Your task to perform on an android device: Check the news Image 0: 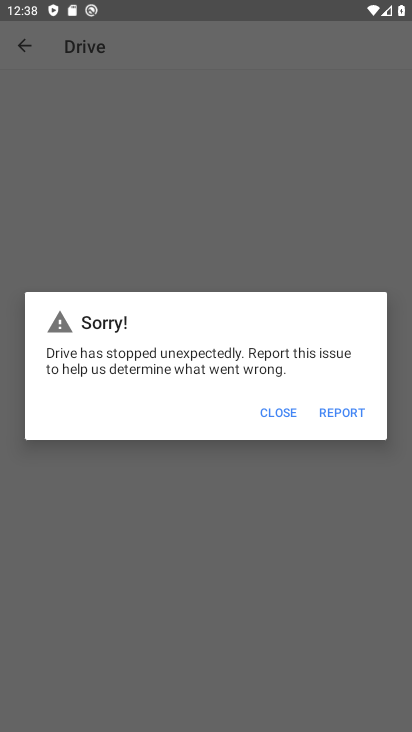
Step 0: press home button
Your task to perform on an android device: Check the news Image 1: 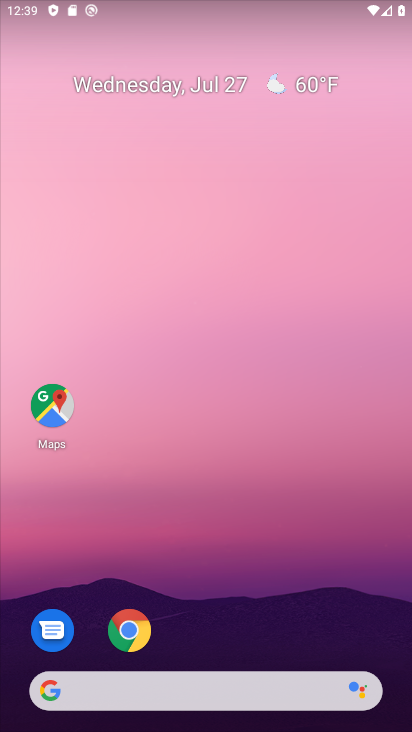
Step 1: click (52, 687)
Your task to perform on an android device: Check the news Image 2: 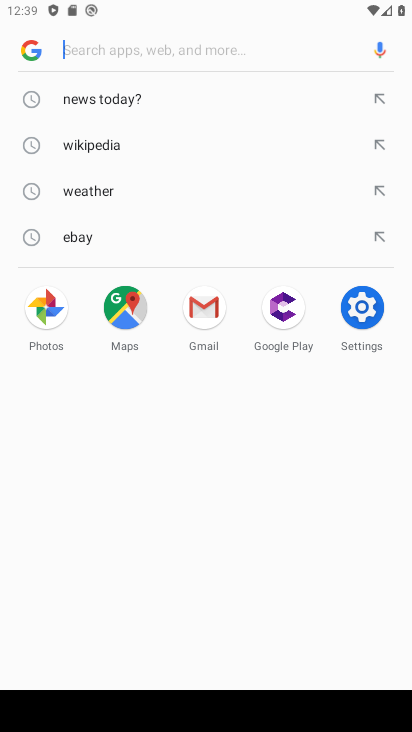
Step 2: type "news"
Your task to perform on an android device: Check the news Image 3: 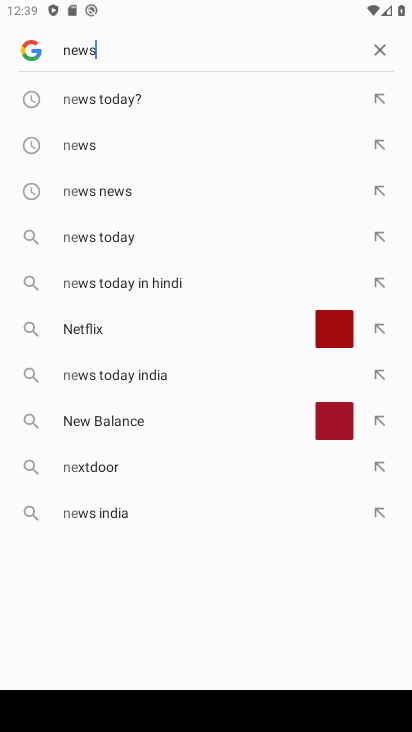
Step 3: press enter
Your task to perform on an android device: Check the news Image 4: 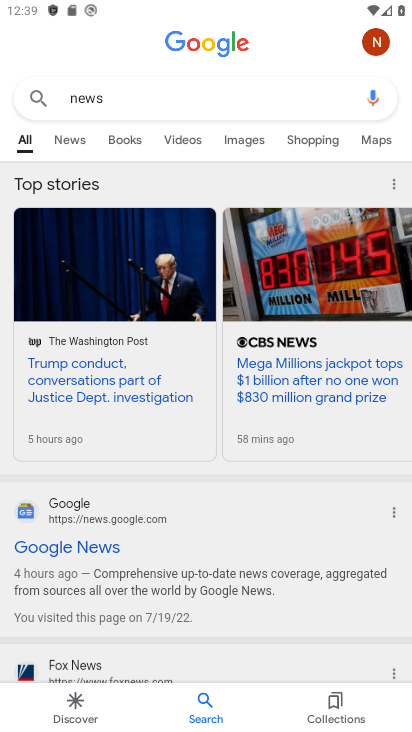
Step 4: task complete